Your task to perform on an android device: turn on priority inbox in the gmail app Image 0: 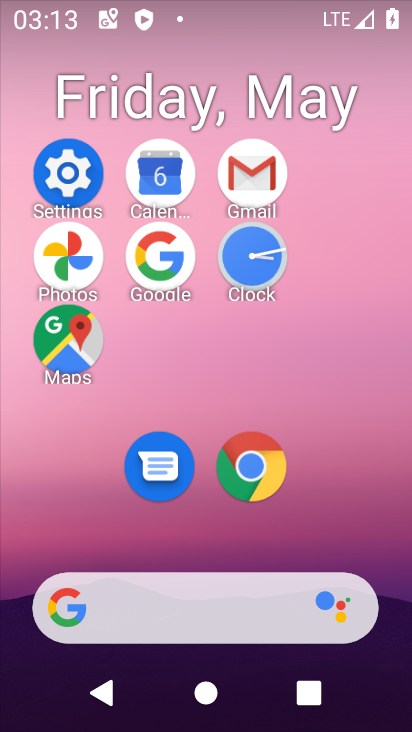
Step 0: click (264, 181)
Your task to perform on an android device: turn on priority inbox in the gmail app Image 1: 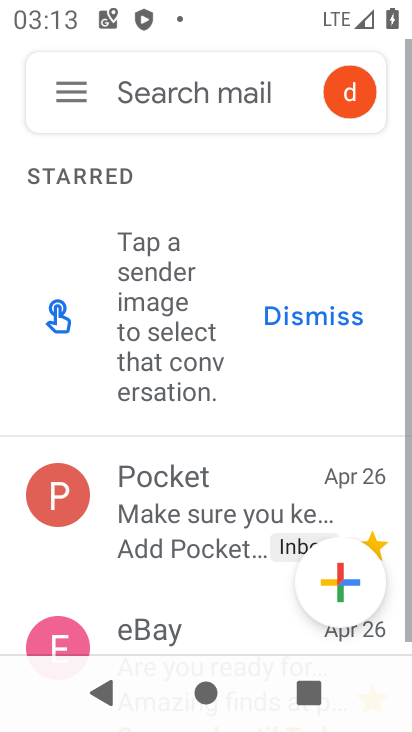
Step 1: click (86, 98)
Your task to perform on an android device: turn on priority inbox in the gmail app Image 2: 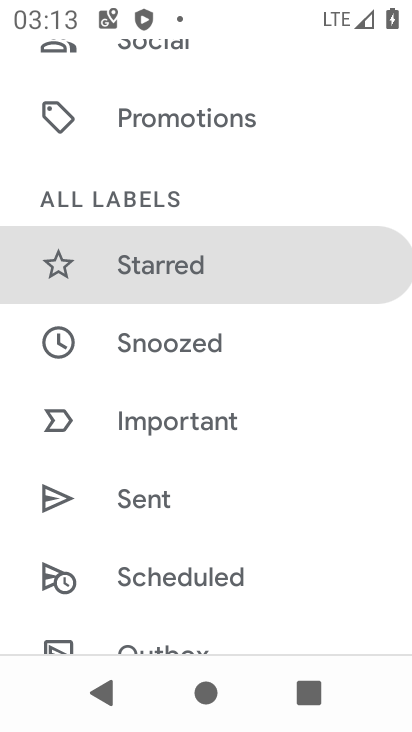
Step 2: drag from (290, 519) to (277, 122)
Your task to perform on an android device: turn on priority inbox in the gmail app Image 3: 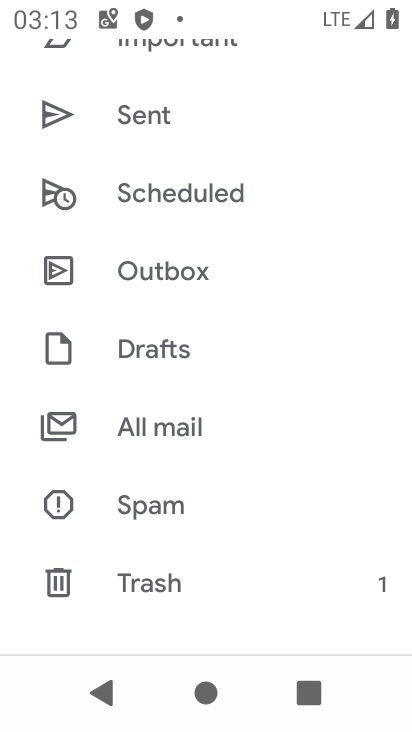
Step 3: drag from (244, 547) to (238, 108)
Your task to perform on an android device: turn on priority inbox in the gmail app Image 4: 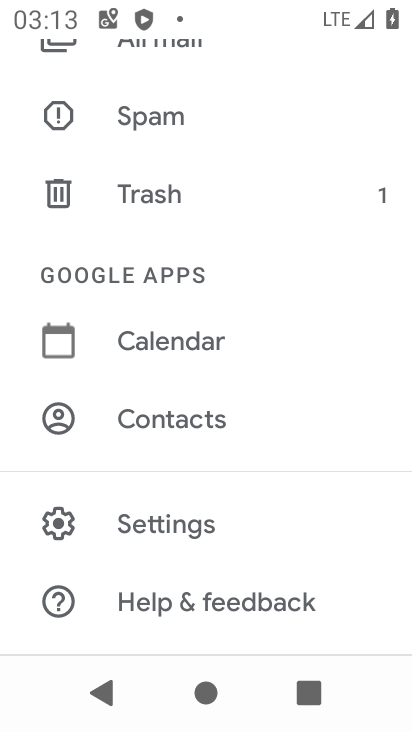
Step 4: click (170, 510)
Your task to perform on an android device: turn on priority inbox in the gmail app Image 5: 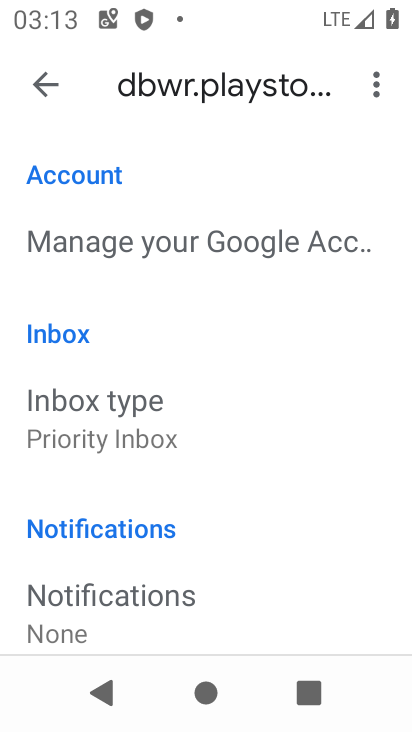
Step 5: task complete